Your task to perform on an android device: turn pop-ups on in chrome Image 0: 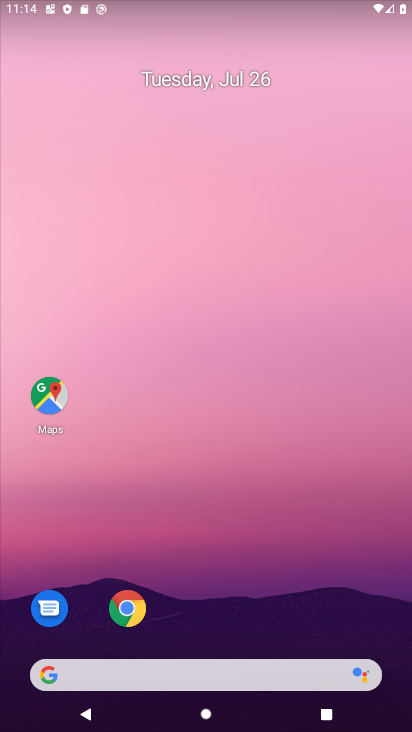
Step 0: click (117, 612)
Your task to perform on an android device: turn pop-ups on in chrome Image 1: 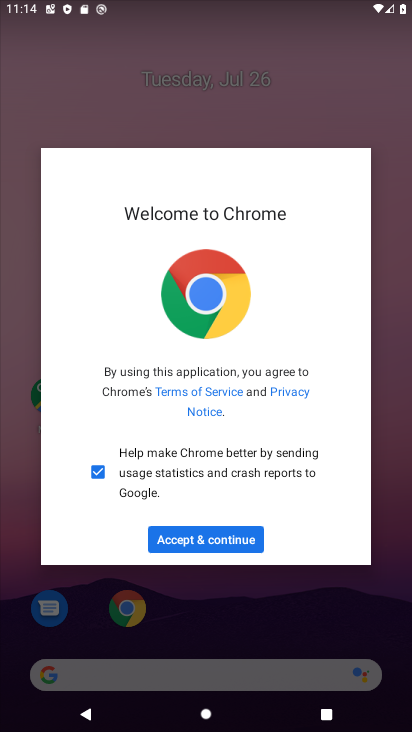
Step 1: click (186, 532)
Your task to perform on an android device: turn pop-ups on in chrome Image 2: 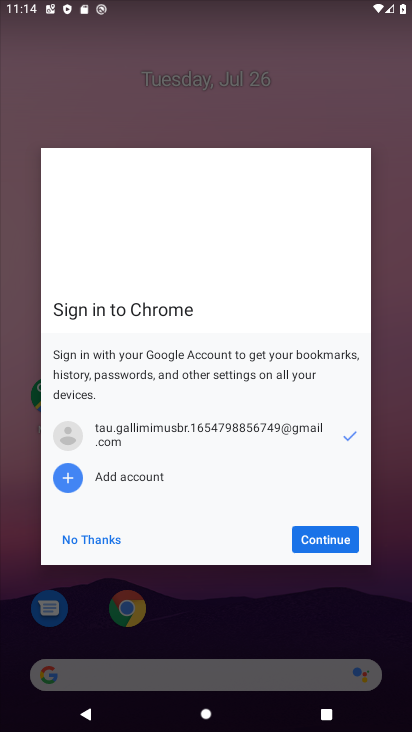
Step 2: click (317, 538)
Your task to perform on an android device: turn pop-ups on in chrome Image 3: 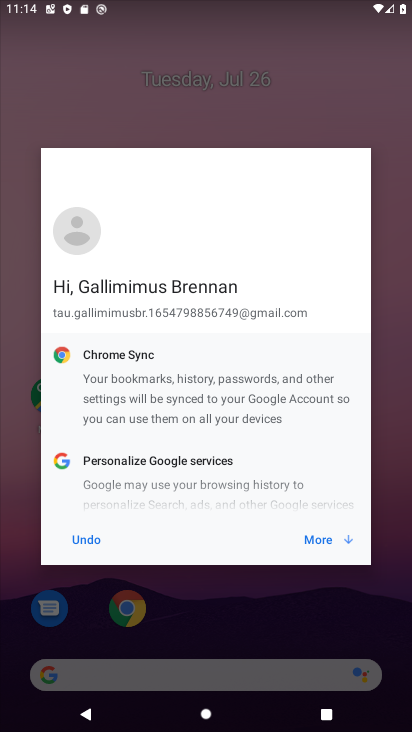
Step 3: click (317, 538)
Your task to perform on an android device: turn pop-ups on in chrome Image 4: 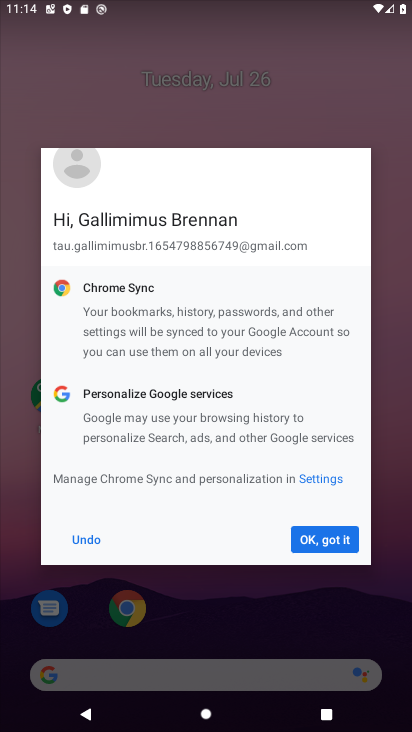
Step 4: click (321, 538)
Your task to perform on an android device: turn pop-ups on in chrome Image 5: 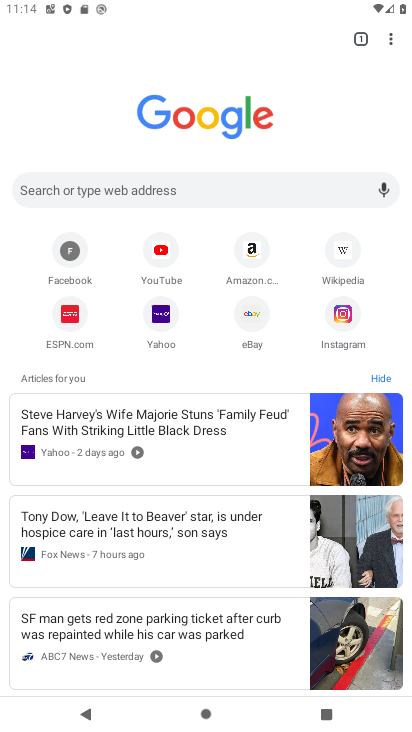
Step 5: click (391, 39)
Your task to perform on an android device: turn pop-ups on in chrome Image 6: 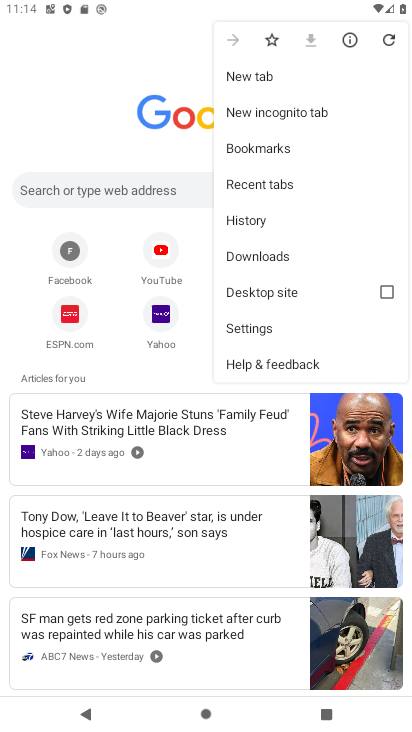
Step 6: click (257, 322)
Your task to perform on an android device: turn pop-ups on in chrome Image 7: 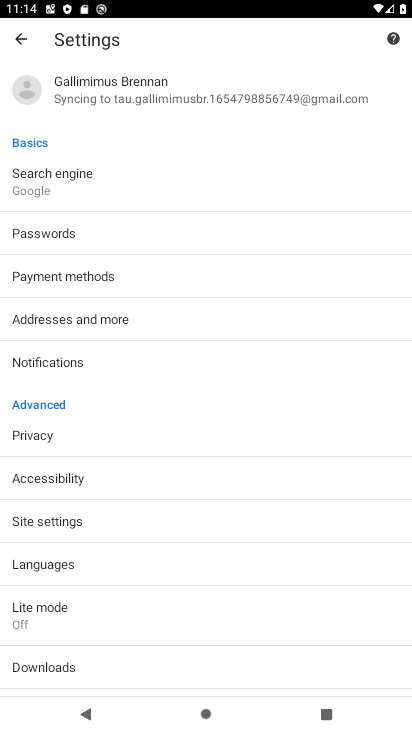
Step 7: click (89, 523)
Your task to perform on an android device: turn pop-ups on in chrome Image 8: 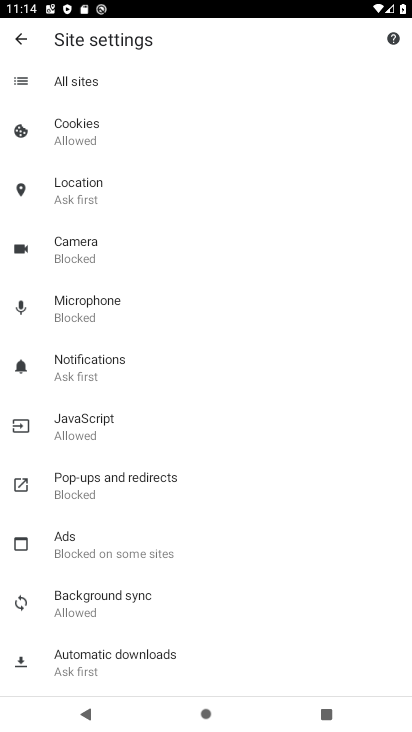
Step 8: click (87, 482)
Your task to perform on an android device: turn pop-ups on in chrome Image 9: 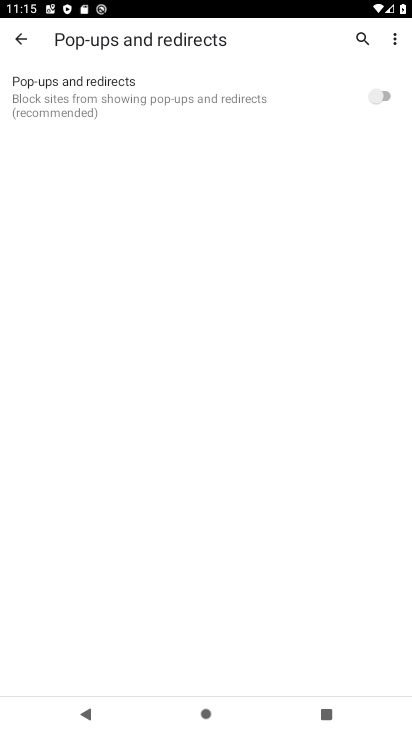
Step 9: click (393, 95)
Your task to perform on an android device: turn pop-ups on in chrome Image 10: 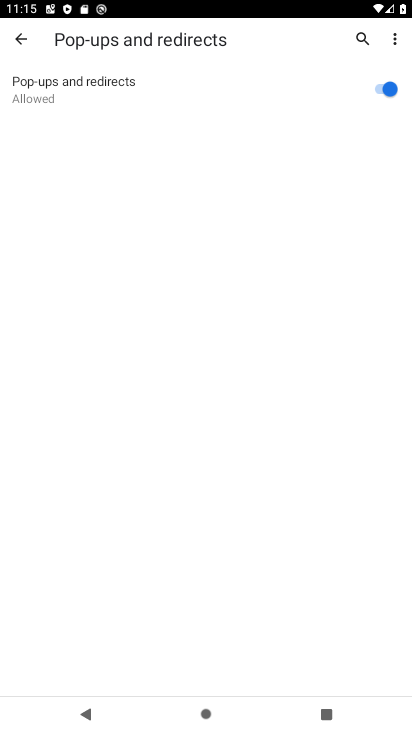
Step 10: task complete